Your task to perform on an android device: turn off smart reply in the gmail app Image 0: 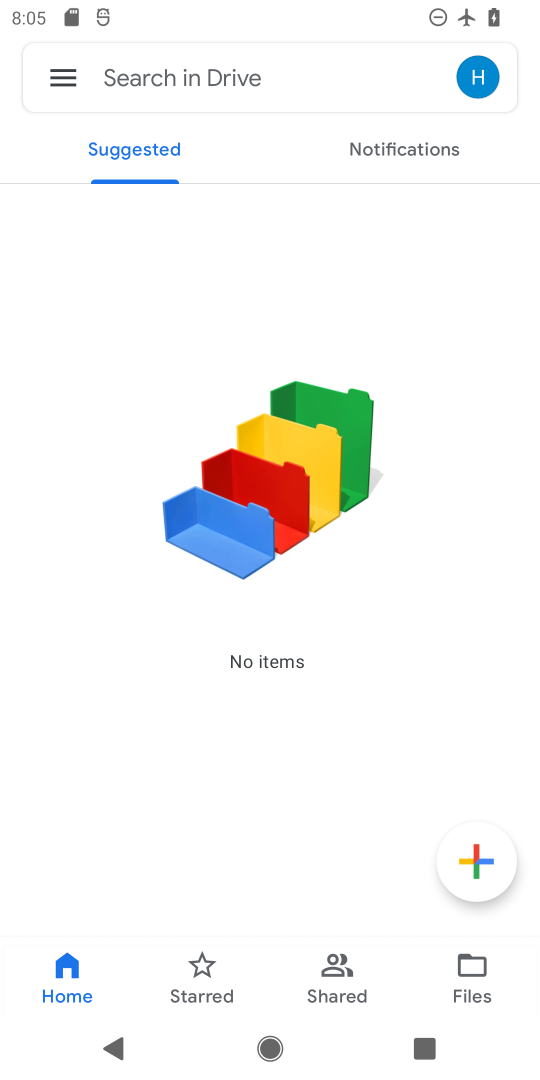
Step 0: press back button
Your task to perform on an android device: turn off smart reply in the gmail app Image 1: 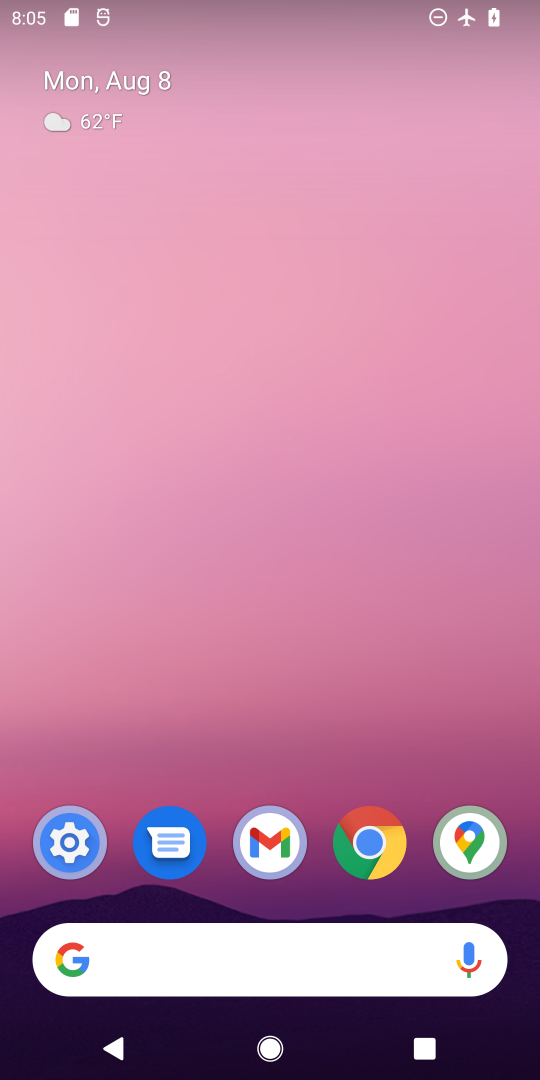
Step 1: drag from (315, 932) to (241, 135)
Your task to perform on an android device: turn off smart reply in the gmail app Image 2: 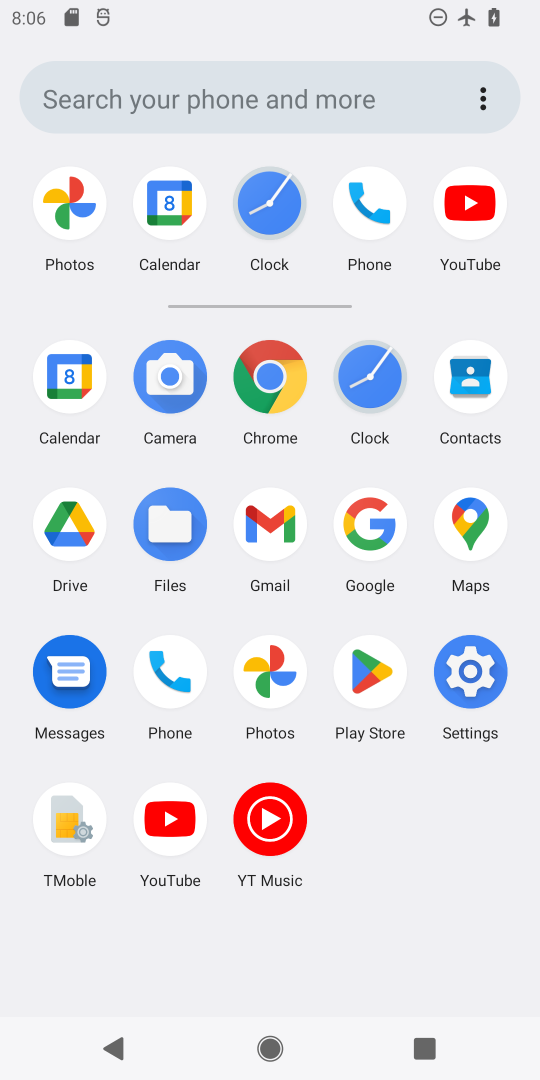
Step 2: click (279, 521)
Your task to perform on an android device: turn off smart reply in the gmail app Image 3: 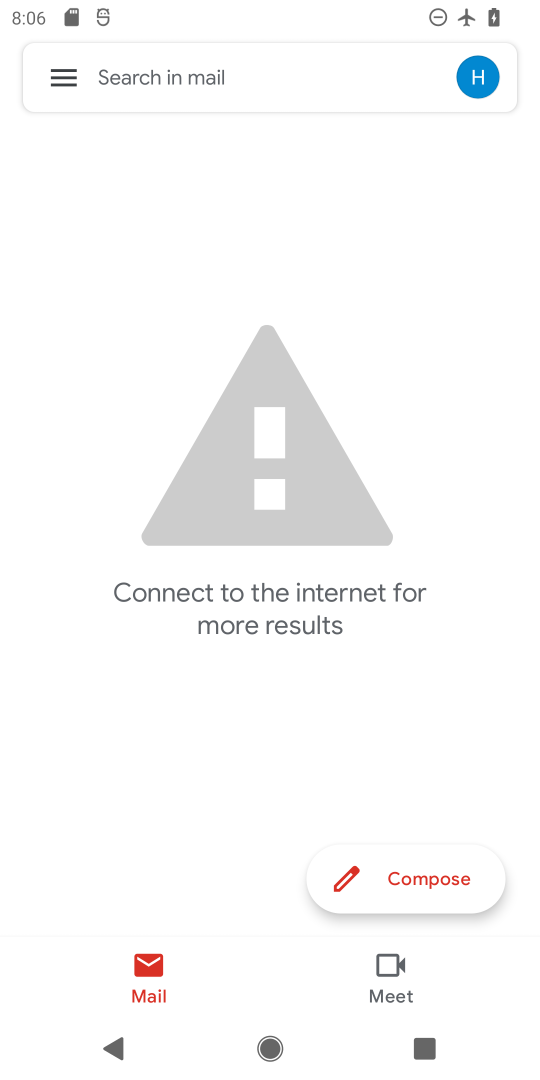
Step 3: click (45, 79)
Your task to perform on an android device: turn off smart reply in the gmail app Image 4: 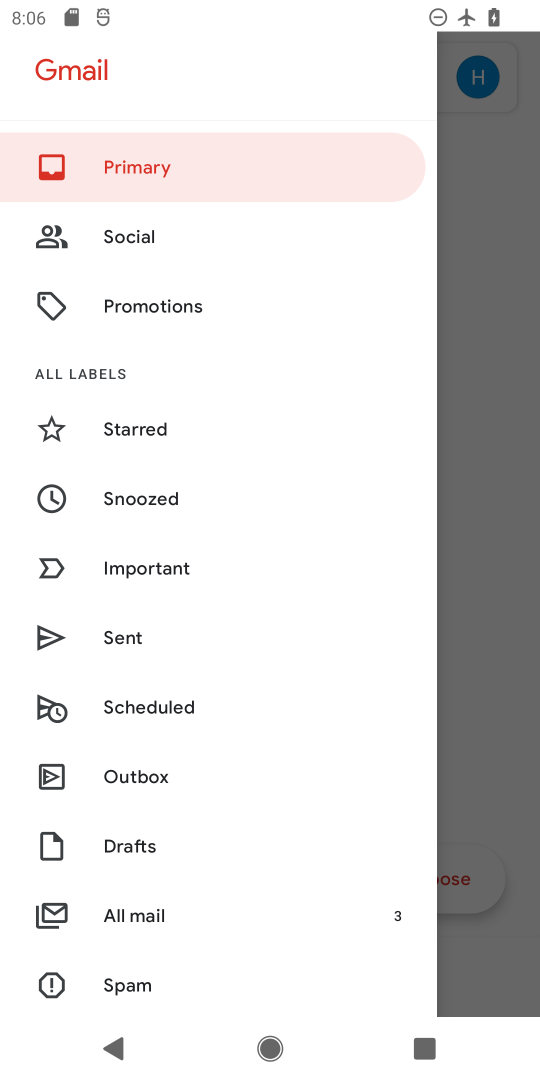
Step 4: drag from (119, 790) to (109, 135)
Your task to perform on an android device: turn off smart reply in the gmail app Image 5: 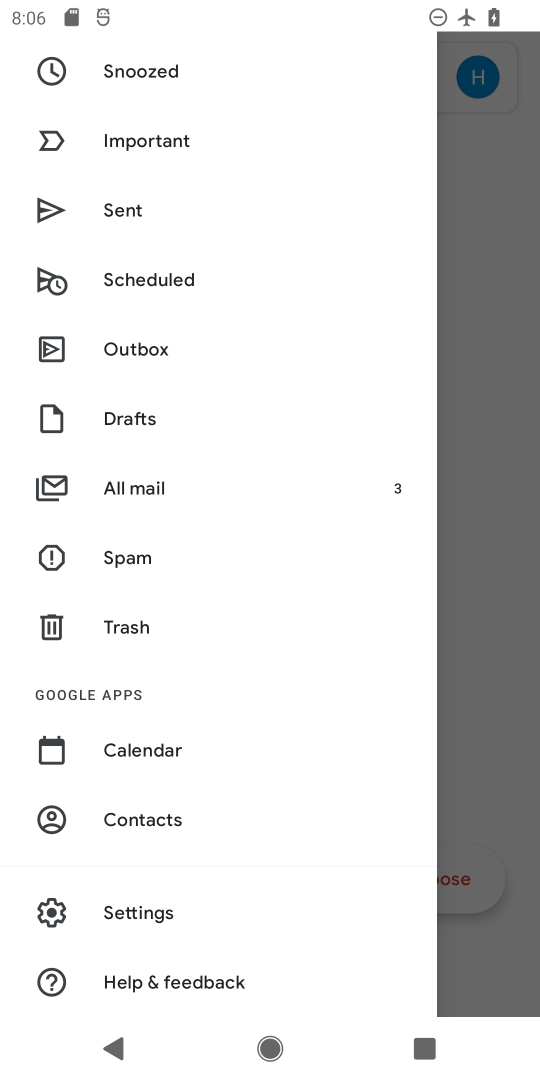
Step 5: click (152, 926)
Your task to perform on an android device: turn off smart reply in the gmail app Image 6: 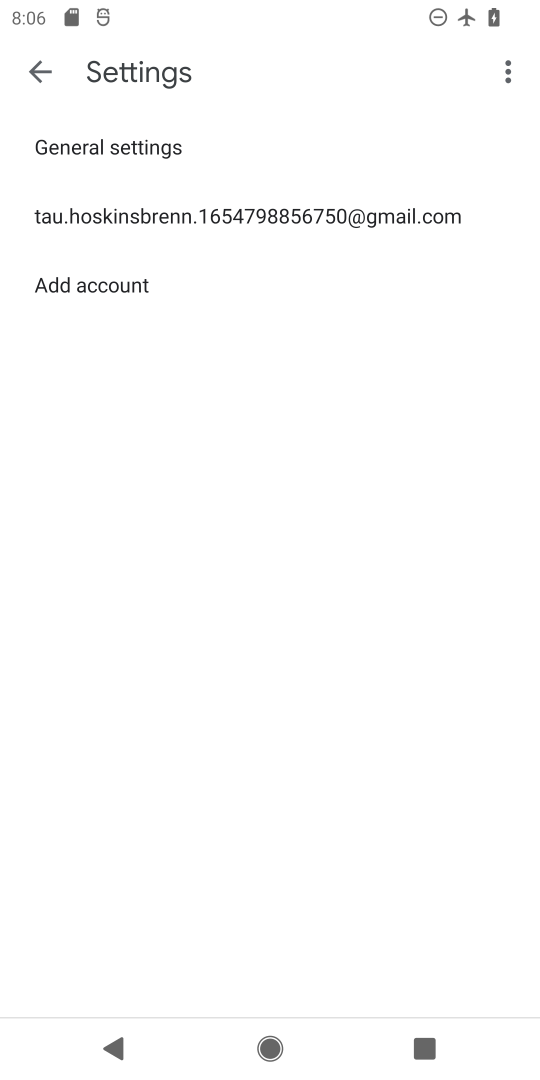
Step 6: click (112, 238)
Your task to perform on an android device: turn off smart reply in the gmail app Image 7: 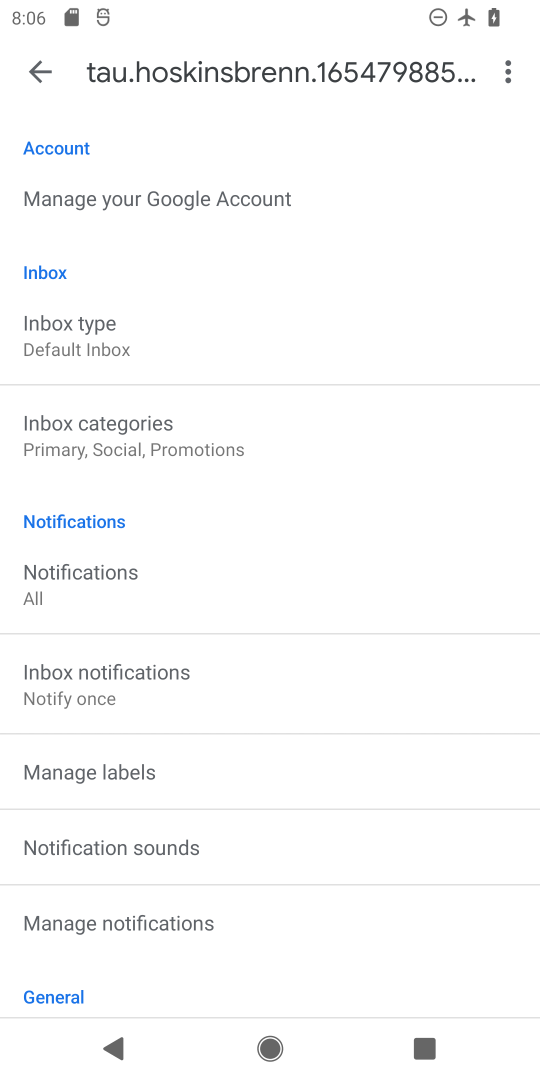
Step 7: task complete